Your task to perform on an android device: check storage Image 0: 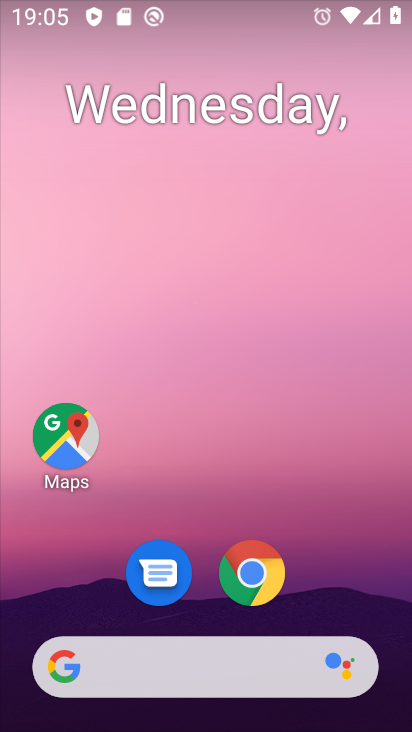
Step 0: drag from (356, 601) to (336, 215)
Your task to perform on an android device: check storage Image 1: 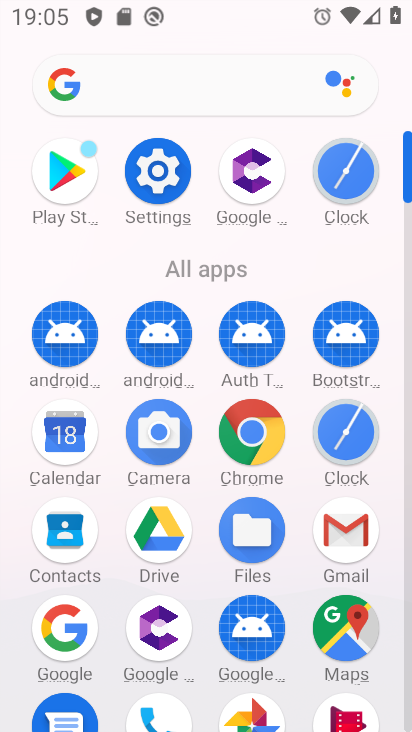
Step 1: click (179, 184)
Your task to perform on an android device: check storage Image 2: 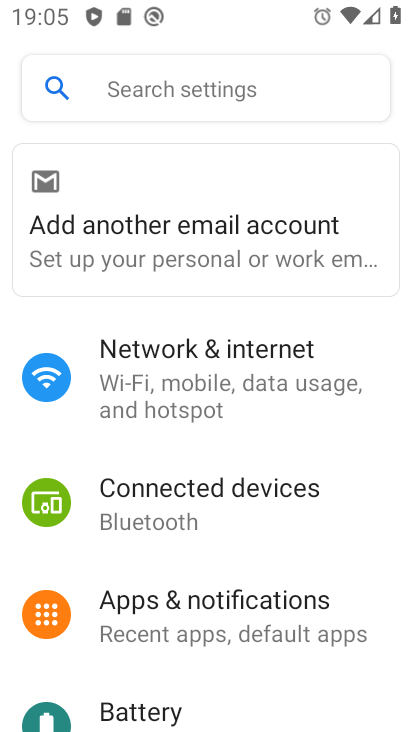
Step 2: drag from (297, 677) to (174, 91)
Your task to perform on an android device: check storage Image 3: 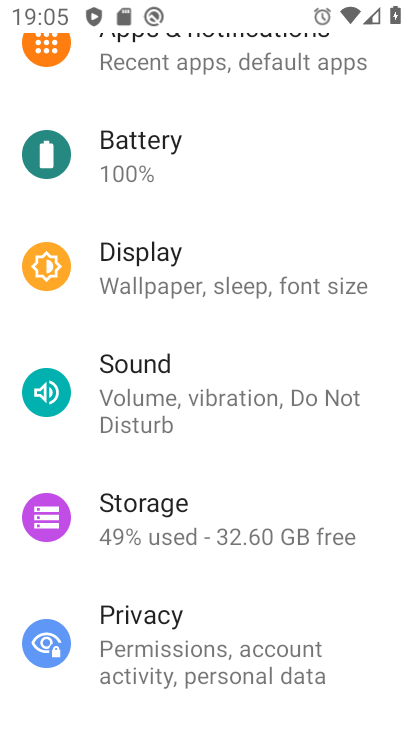
Step 3: click (160, 529)
Your task to perform on an android device: check storage Image 4: 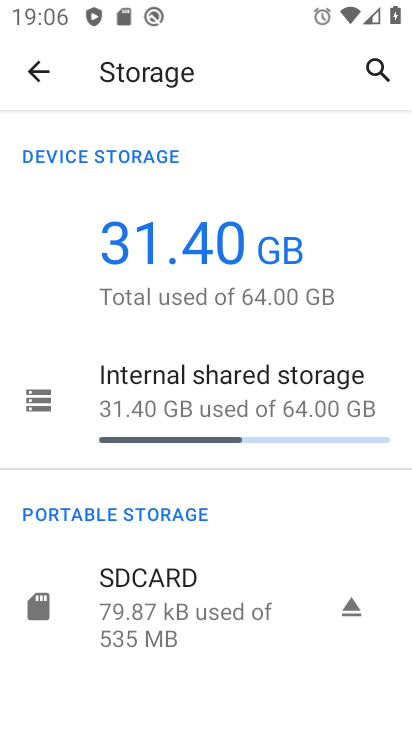
Step 4: task complete